Your task to perform on an android device: toggle wifi Image 0: 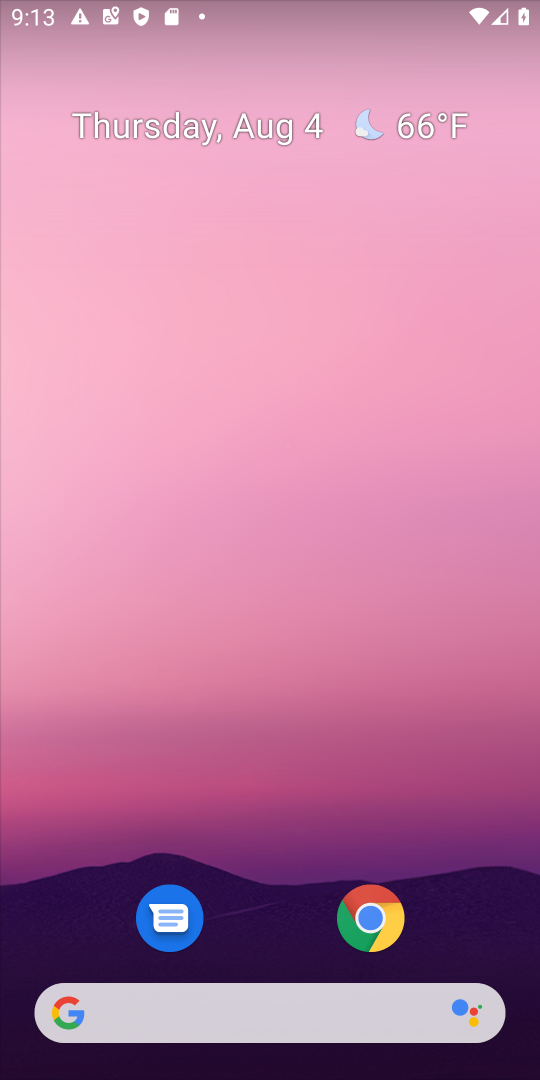
Step 0: press home button
Your task to perform on an android device: toggle wifi Image 1: 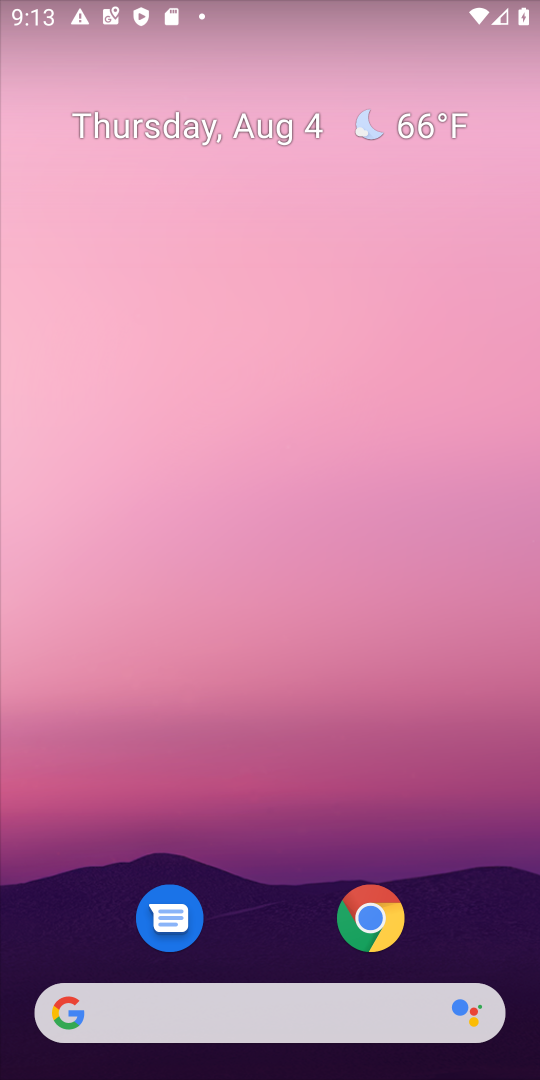
Step 1: drag from (255, 955) to (207, 108)
Your task to perform on an android device: toggle wifi Image 2: 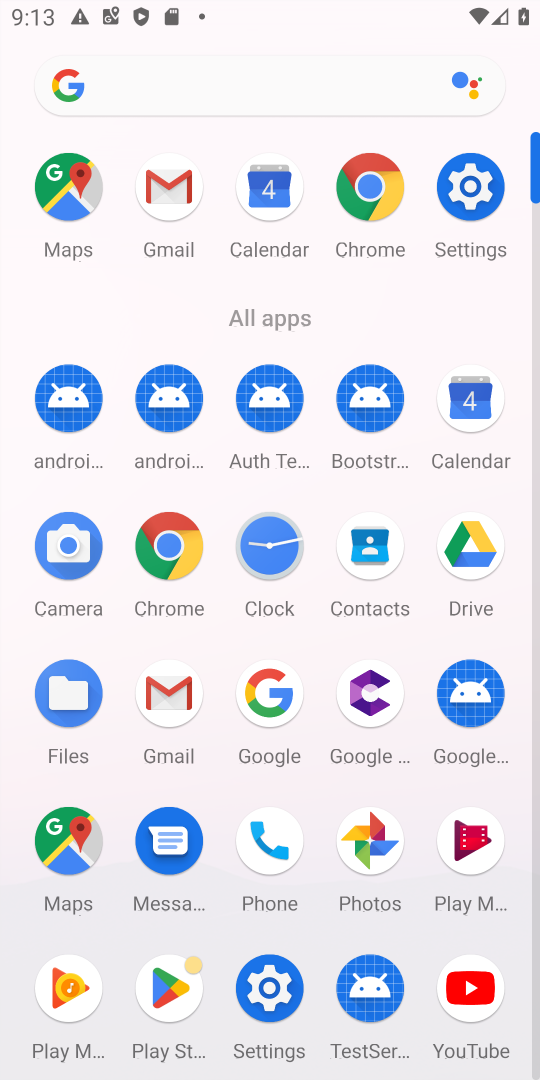
Step 2: drag from (197, 15) to (324, 960)
Your task to perform on an android device: toggle wifi Image 3: 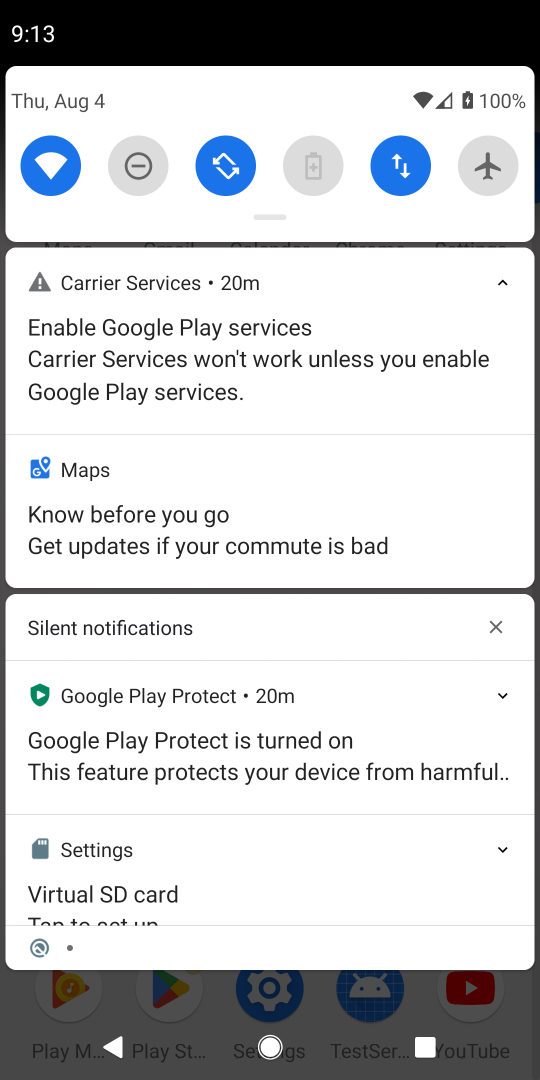
Step 3: click (47, 161)
Your task to perform on an android device: toggle wifi Image 4: 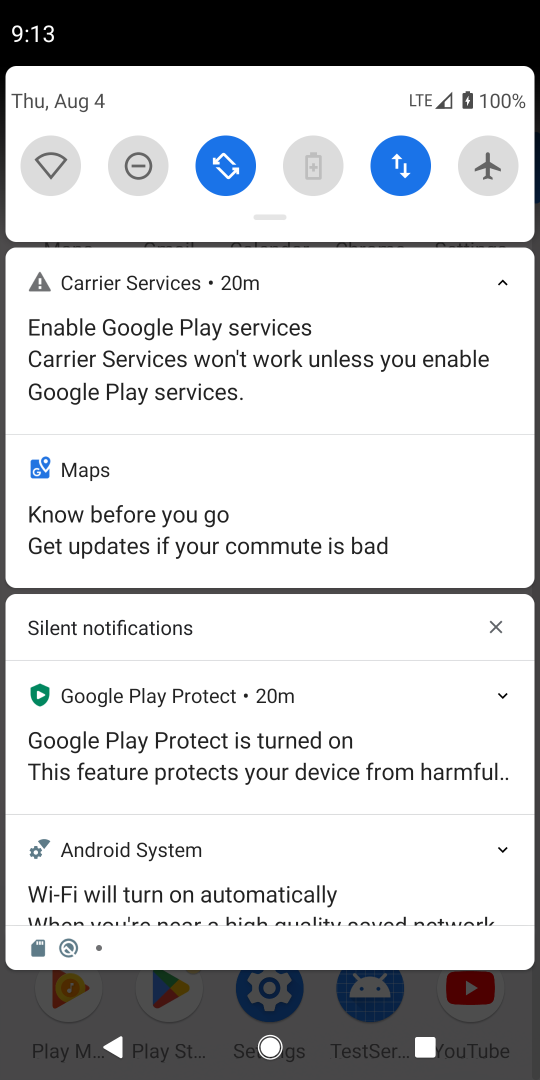
Step 4: task complete